Your task to perform on an android device: search for starred emails in the gmail app Image 0: 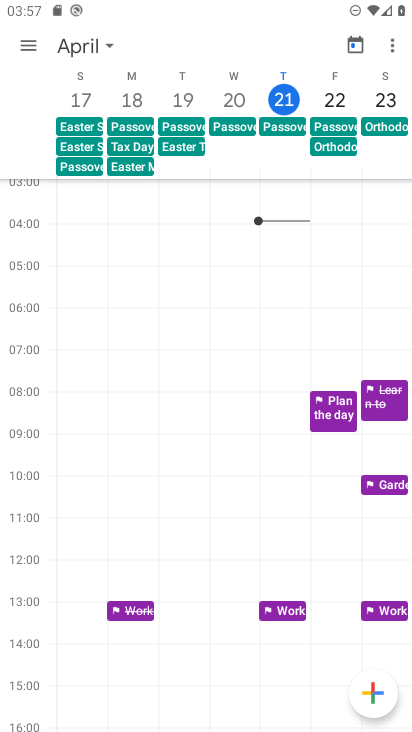
Step 0: press home button
Your task to perform on an android device: search for starred emails in the gmail app Image 1: 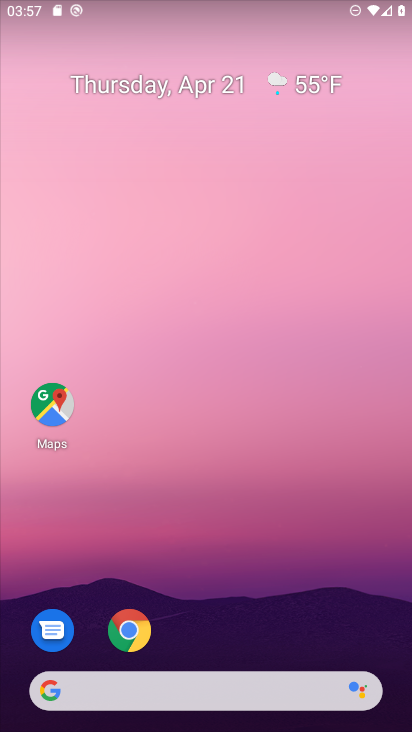
Step 1: drag from (195, 512) to (196, 30)
Your task to perform on an android device: search for starred emails in the gmail app Image 2: 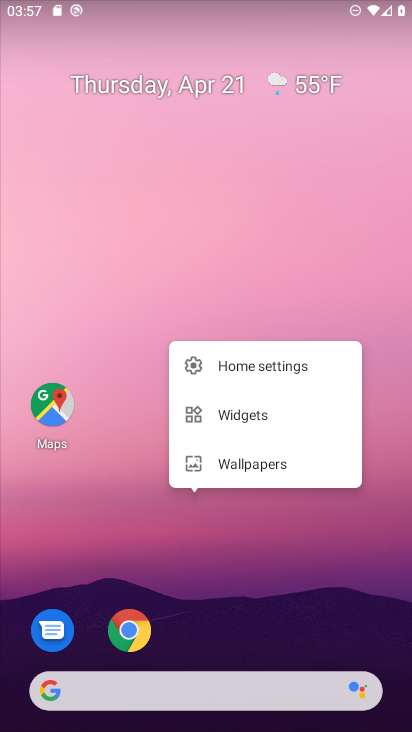
Step 2: click (267, 555)
Your task to perform on an android device: search for starred emails in the gmail app Image 3: 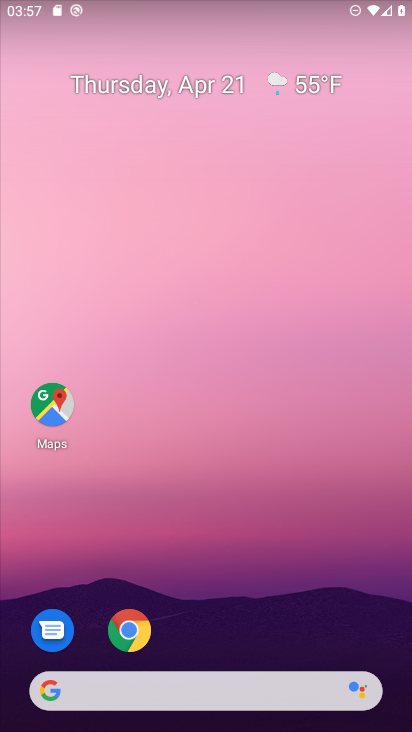
Step 3: drag from (267, 555) to (260, 64)
Your task to perform on an android device: search for starred emails in the gmail app Image 4: 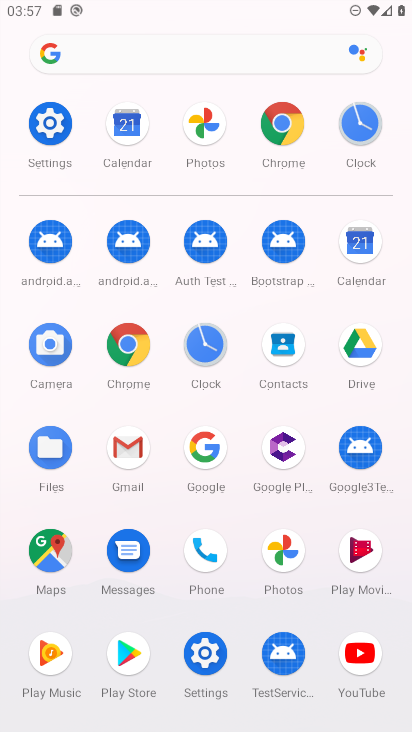
Step 4: drag from (131, 462) to (248, 396)
Your task to perform on an android device: search for starred emails in the gmail app Image 5: 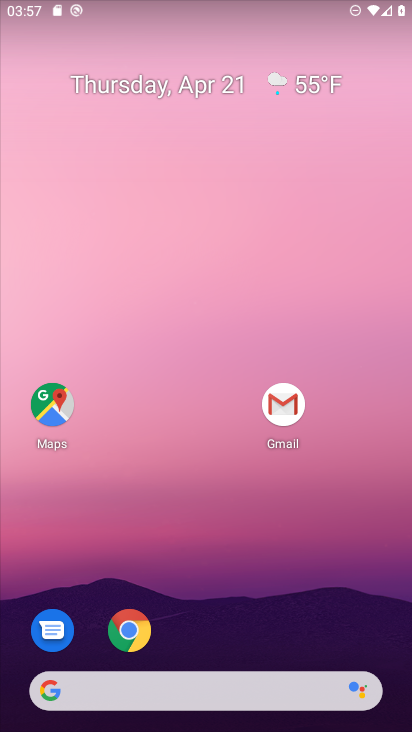
Step 5: click (290, 422)
Your task to perform on an android device: search for starred emails in the gmail app Image 6: 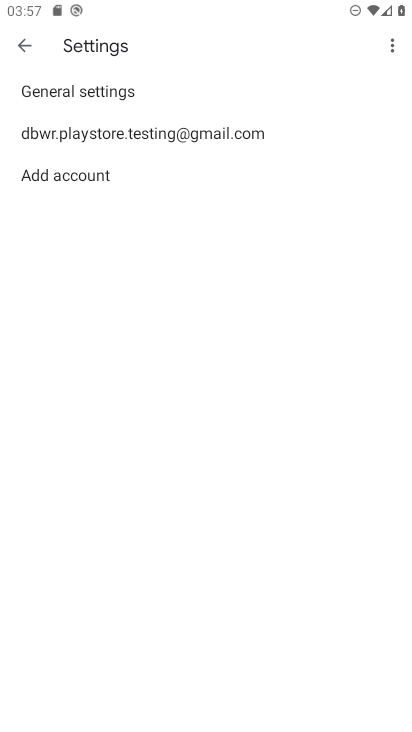
Step 6: click (5, 39)
Your task to perform on an android device: search for starred emails in the gmail app Image 7: 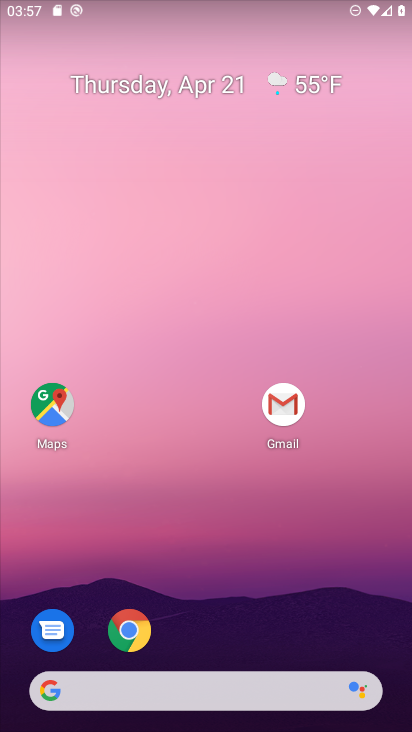
Step 7: click (293, 441)
Your task to perform on an android device: search for starred emails in the gmail app Image 8: 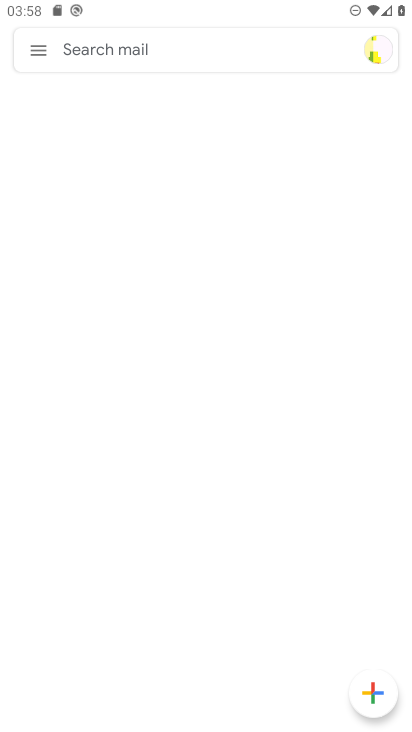
Step 8: click (33, 44)
Your task to perform on an android device: search for starred emails in the gmail app Image 9: 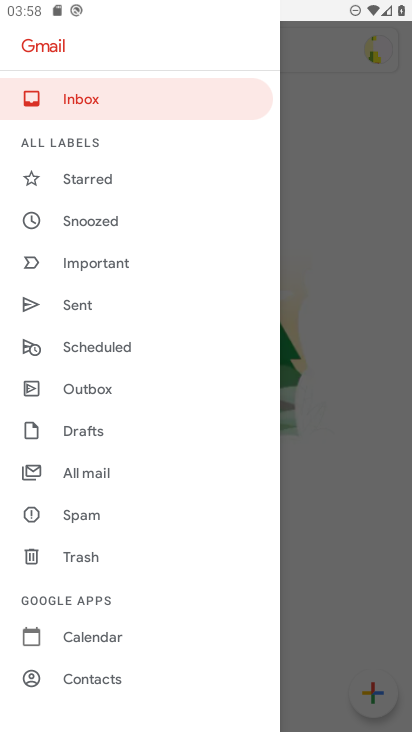
Step 9: click (75, 191)
Your task to perform on an android device: search for starred emails in the gmail app Image 10: 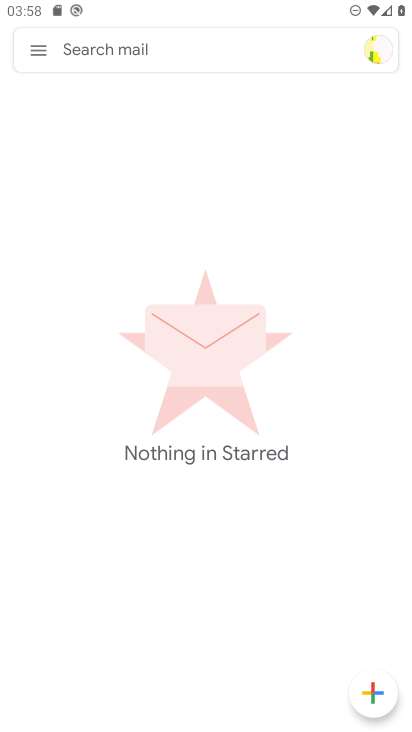
Step 10: task complete